Your task to perform on an android device: stop showing notifications on the lock screen Image 0: 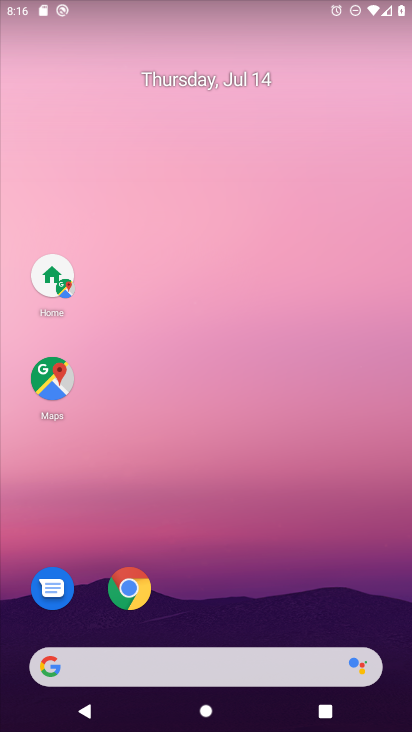
Step 0: drag from (27, 702) to (114, 67)
Your task to perform on an android device: stop showing notifications on the lock screen Image 1: 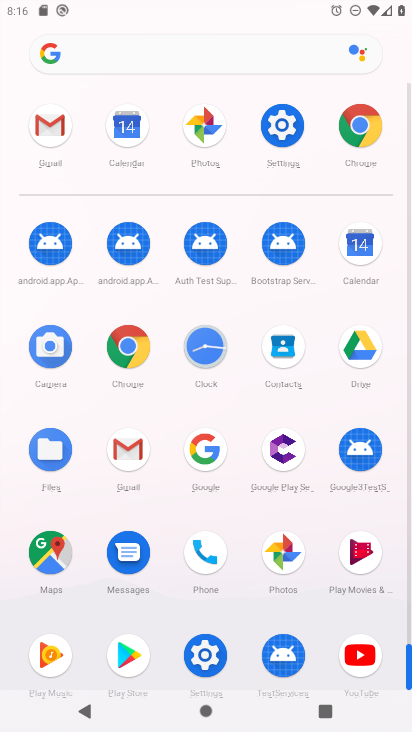
Step 1: click (195, 653)
Your task to perform on an android device: stop showing notifications on the lock screen Image 2: 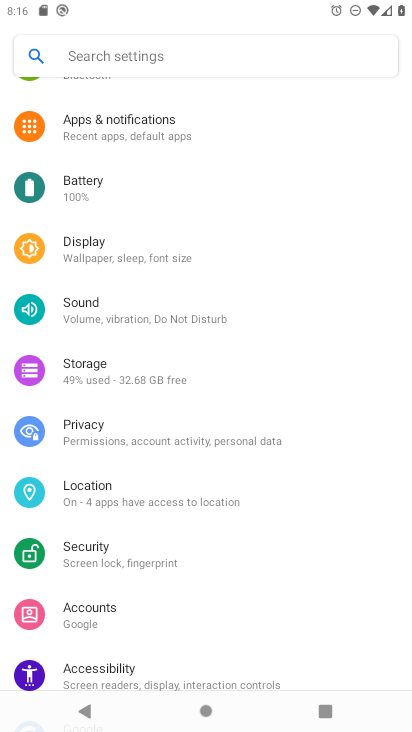
Step 2: click (129, 122)
Your task to perform on an android device: stop showing notifications on the lock screen Image 3: 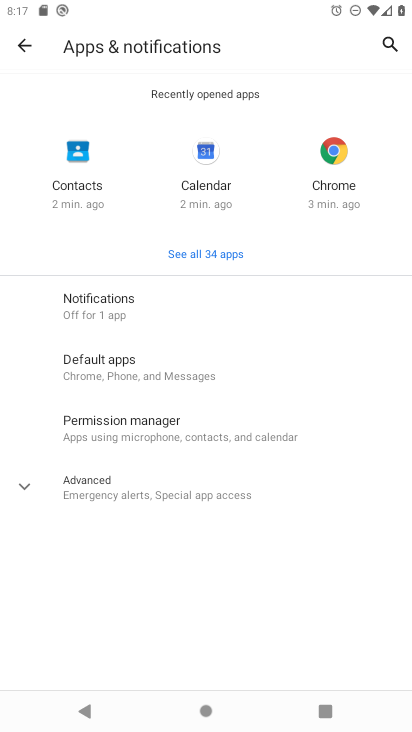
Step 3: click (67, 488)
Your task to perform on an android device: stop showing notifications on the lock screen Image 4: 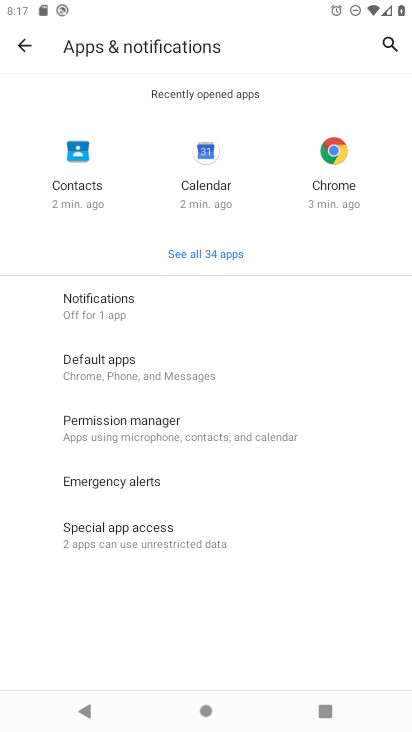
Step 4: click (141, 305)
Your task to perform on an android device: stop showing notifications on the lock screen Image 5: 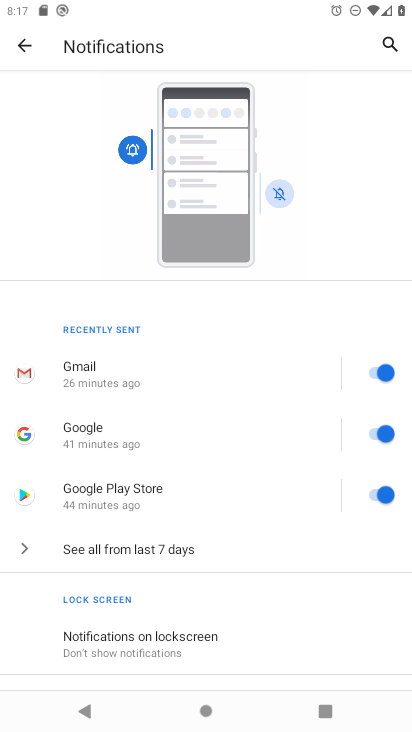
Step 5: click (141, 644)
Your task to perform on an android device: stop showing notifications on the lock screen Image 6: 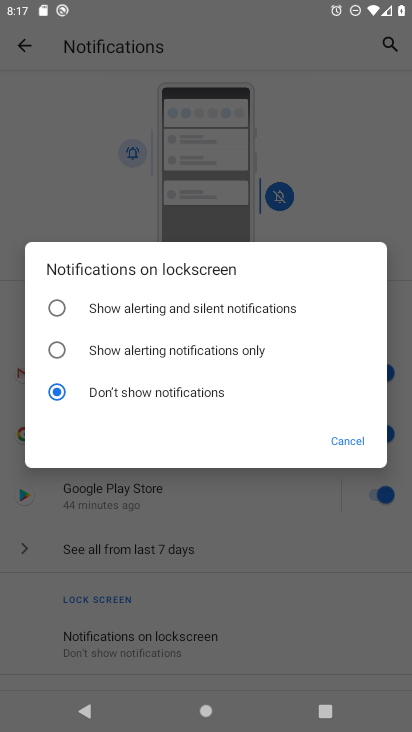
Step 6: task complete